Your task to perform on an android device: Open battery settings Image 0: 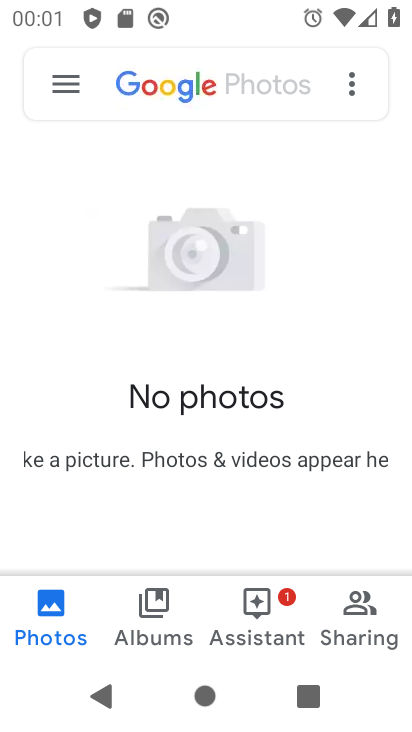
Step 0: press home button
Your task to perform on an android device: Open battery settings Image 1: 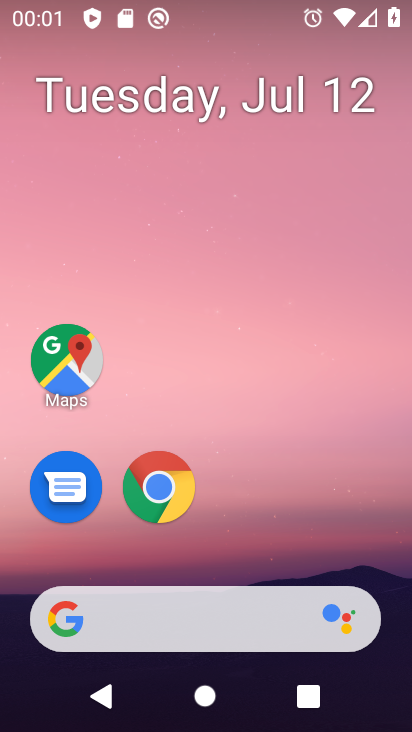
Step 1: drag from (387, 554) to (359, 104)
Your task to perform on an android device: Open battery settings Image 2: 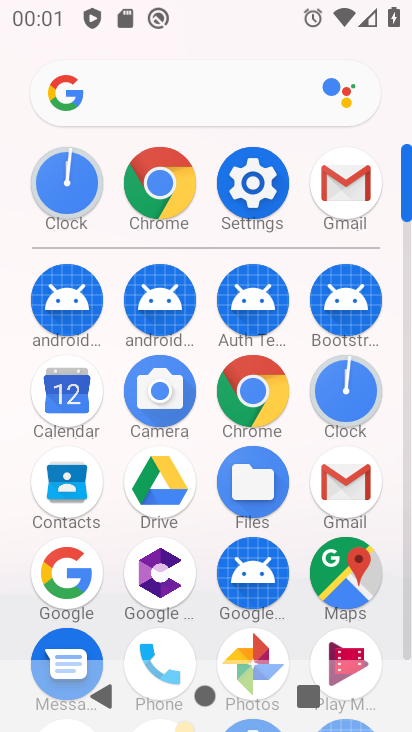
Step 2: click (235, 203)
Your task to perform on an android device: Open battery settings Image 3: 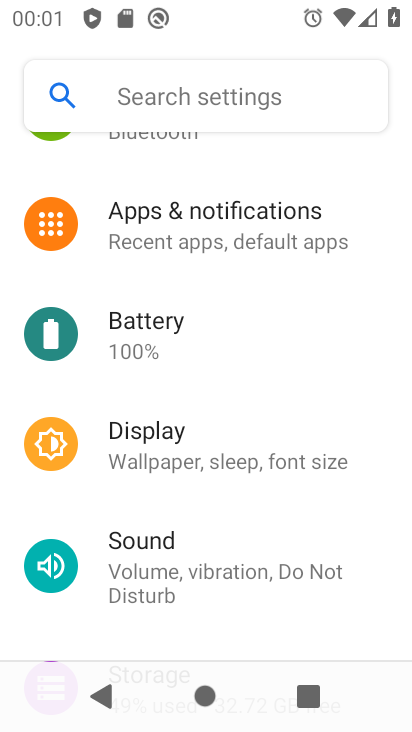
Step 3: drag from (364, 525) to (363, 385)
Your task to perform on an android device: Open battery settings Image 4: 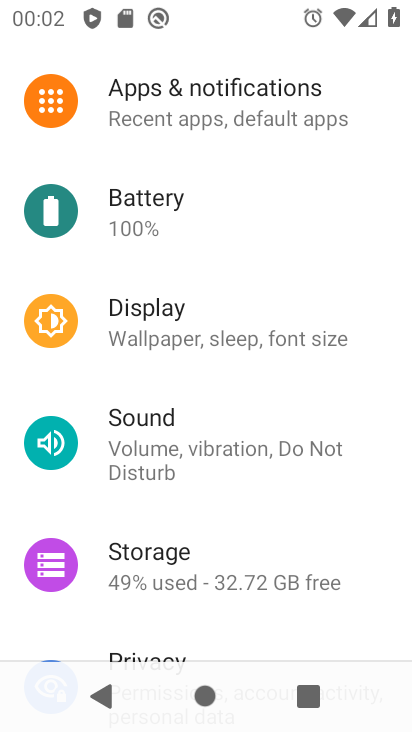
Step 4: drag from (361, 530) to (367, 374)
Your task to perform on an android device: Open battery settings Image 5: 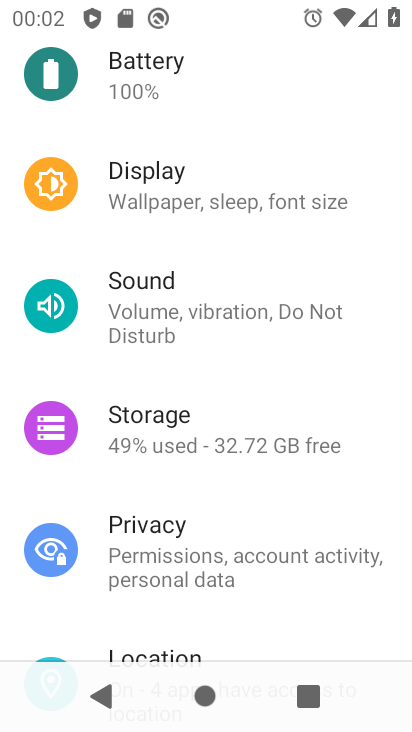
Step 5: drag from (353, 606) to (368, 437)
Your task to perform on an android device: Open battery settings Image 6: 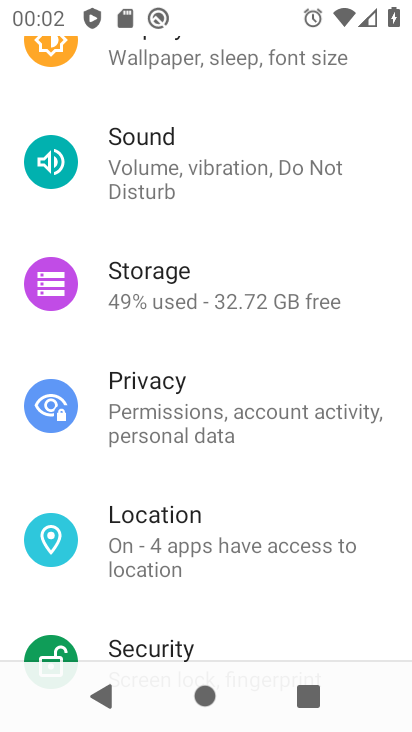
Step 6: drag from (350, 635) to (359, 418)
Your task to perform on an android device: Open battery settings Image 7: 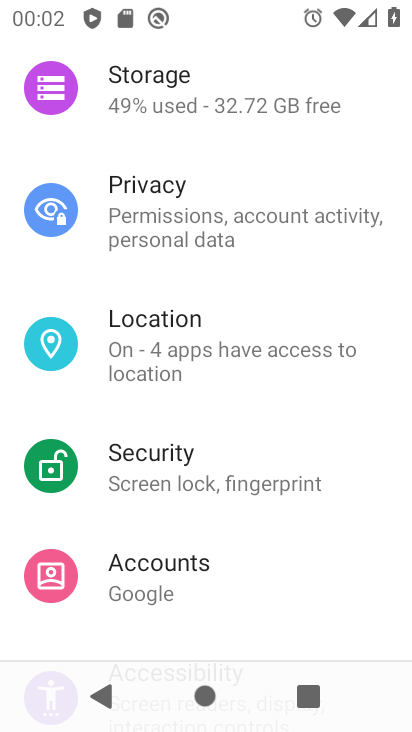
Step 7: drag from (342, 610) to (342, 443)
Your task to perform on an android device: Open battery settings Image 8: 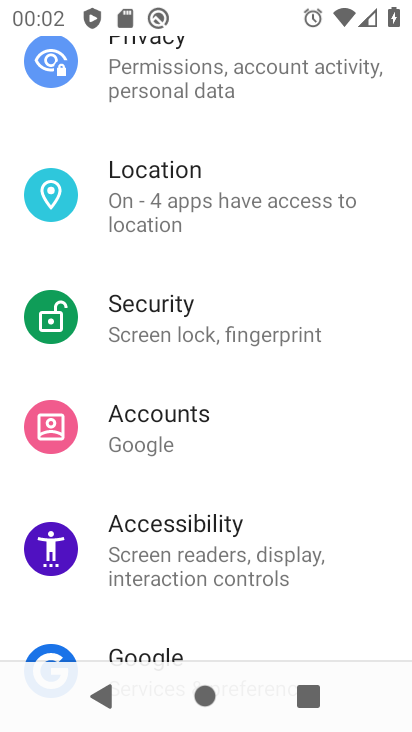
Step 8: drag from (354, 607) to (349, 441)
Your task to perform on an android device: Open battery settings Image 9: 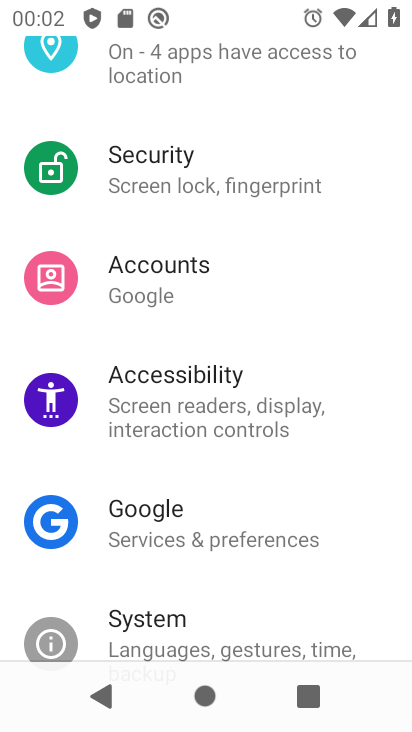
Step 9: drag from (358, 583) to (353, 435)
Your task to perform on an android device: Open battery settings Image 10: 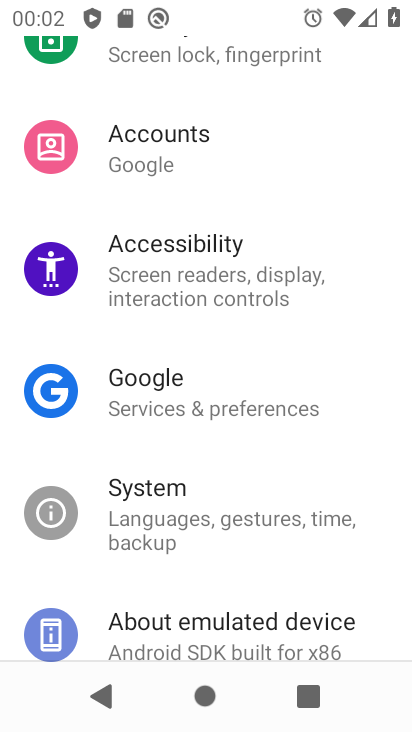
Step 10: drag from (353, 574) to (352, 458)
Your task to perform on an android device: Open battery settings Image 11: 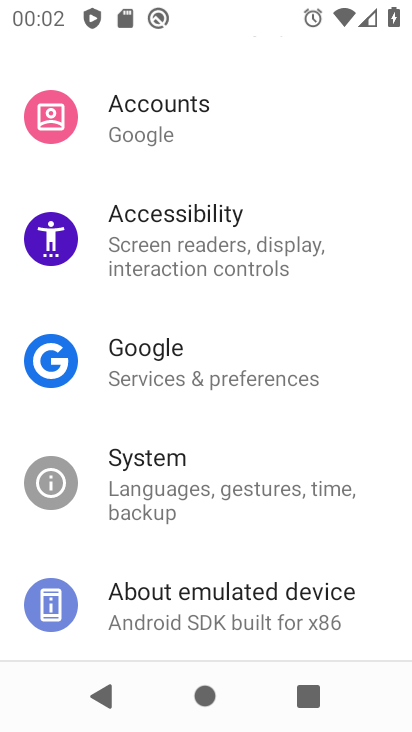
Step 11: drag from (356, 626) to (356, 476)
Your task to perform on an android device: Open battery settings Image 12: 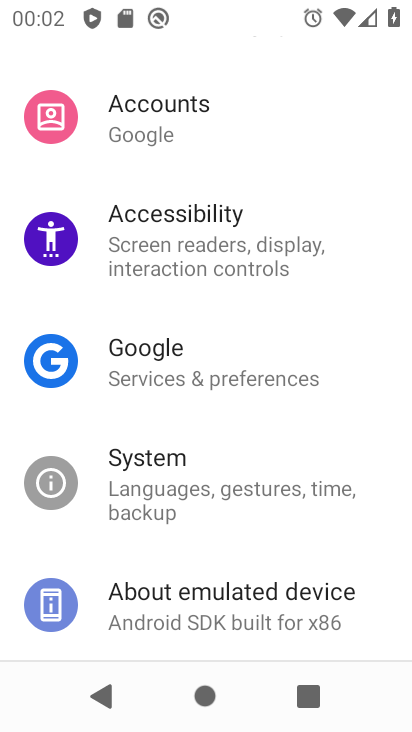
Step 12: drag from (354, 327) to (366, 483)
Your task to perform on an android device: Open battery settings Image 13: 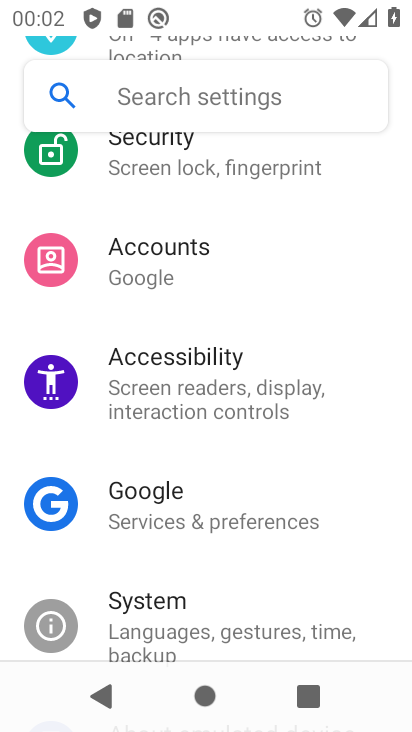
Step 13: drag from (336, 306) to (350, 447)
Your task to perform on an android device: Open battery settings Image 14: 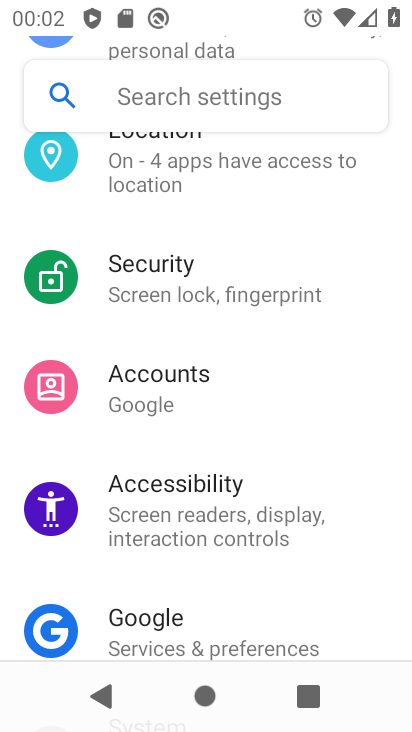
Step 14: drag from (351, 277) to (362, 453)
Your task to perform on an android device: Open battery settings Image 15: 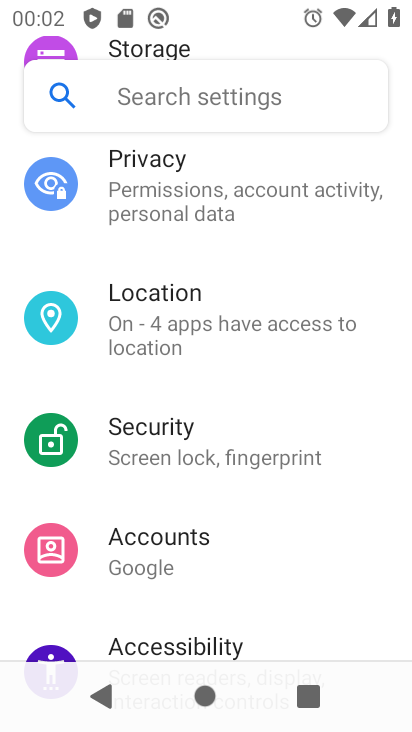
Step 15: drag from (349, 244) to (348, 403)
Your task to perform on an android device: Open battery settings Image 16: 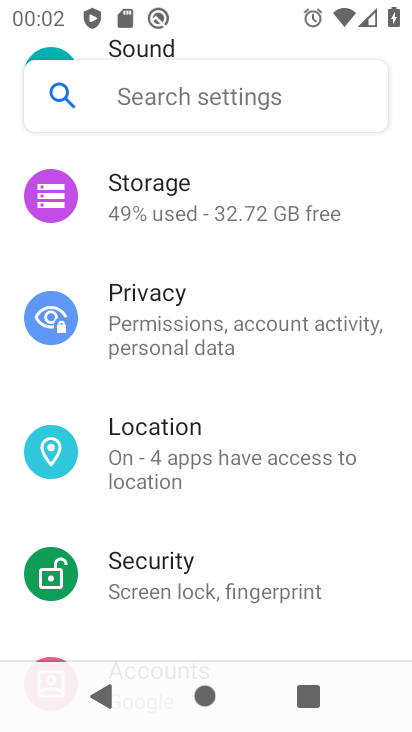
Step 16: drag from (362, 210) to (370, 374)
Your task to perform on an android device: Open battery settings Image 17: 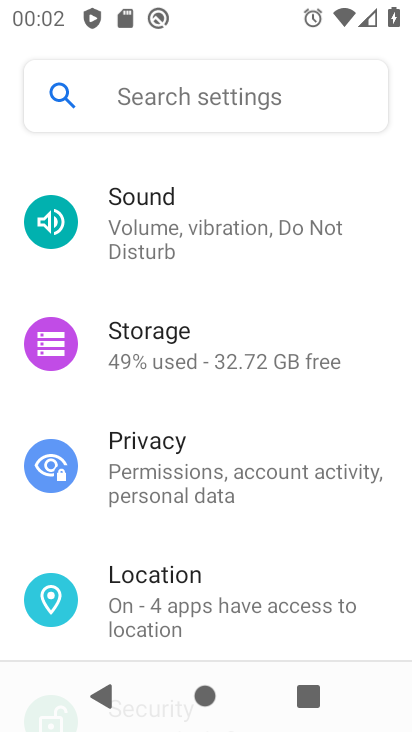
Step 17: drag from (369, 210) to (373, 400)
Your task to perform on an android device: Open battery settings Image 18: 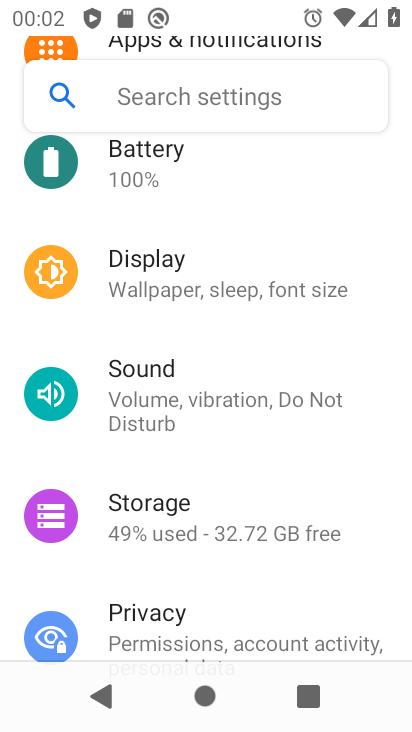
Step 18: drag from (330, 202) to (340, 352)
Your task to perform on an android device: Open battery settings Image 19: 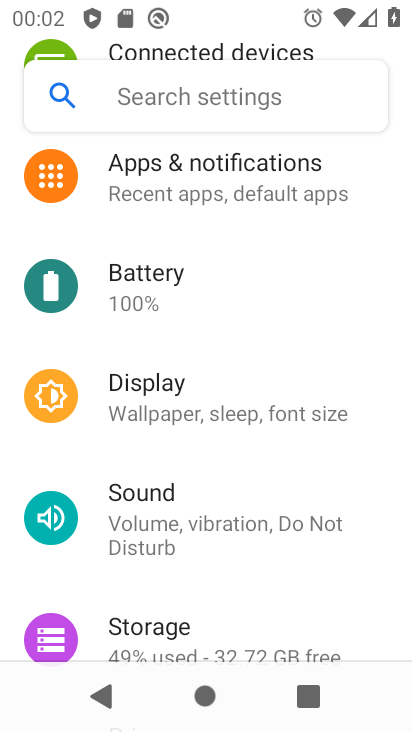
Step 19: click (243, 283)
Your task to perform on an android device: Open battery settings Image 20: 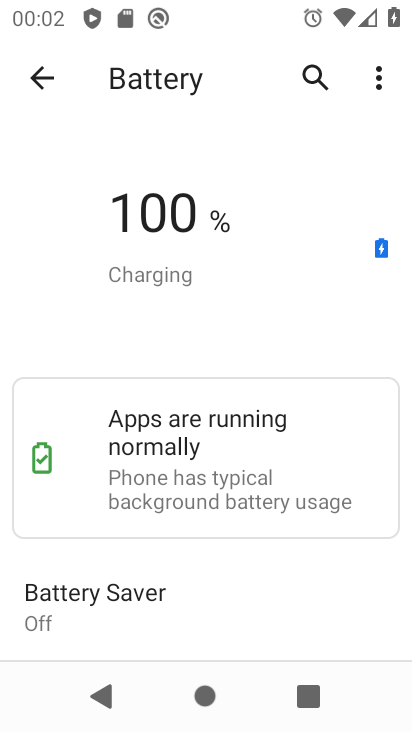
Step 20: task complete